Your task to perform on an android device: Toggle the flashlight Image 0: 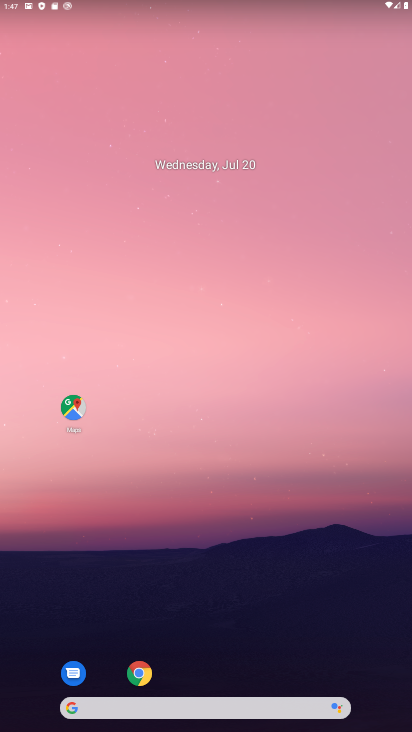
Step 0: drag from (189, 666) to (231, 134)
Your task to perform on an android device: Toggle the flashlight Image 1: 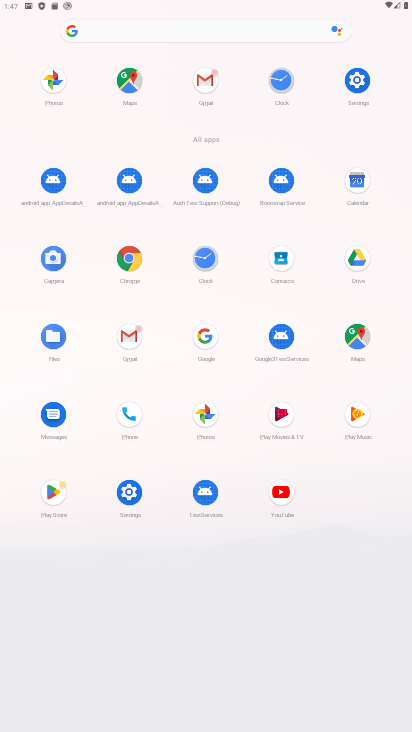
Step 1: click (359, 80)
Your task to perform on an android device: Toggle the flashlight Image 2: 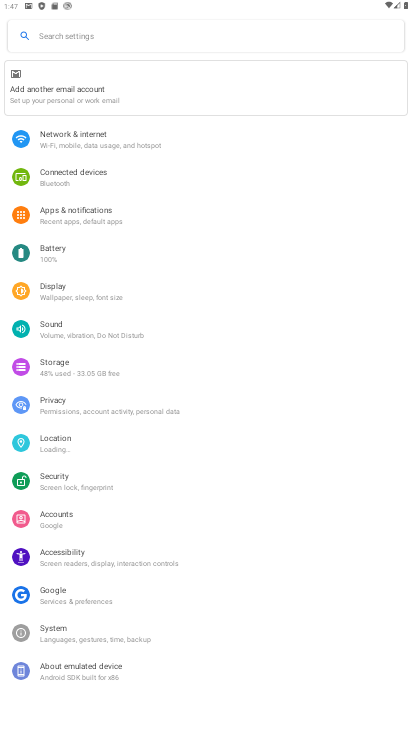
Step 2: click (138, 44)
Your task to perform on an android device: Toggle the flashlight Image 3: 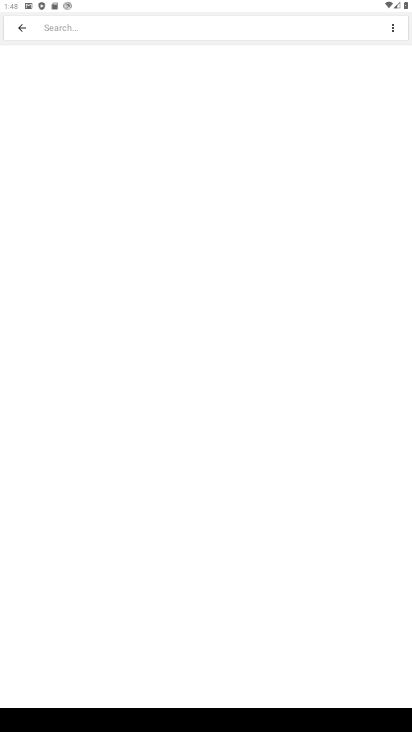
Step 3: type "flashlight"
Your task to perform on an android device: Toggle the flashlight Image 4: 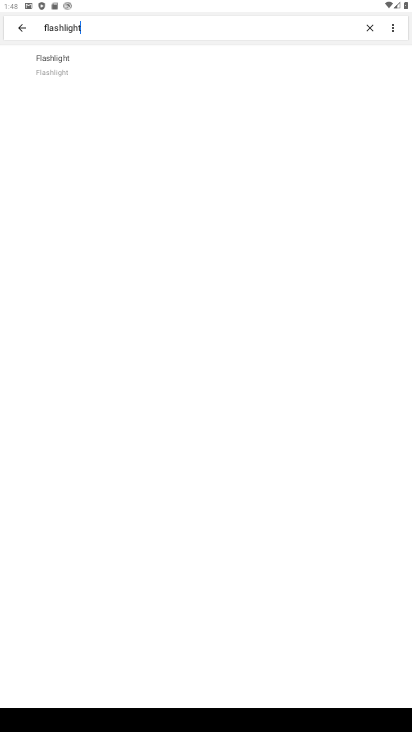
Step 4: task complete